Your task to perform on an android device: Open Amazon Image 0: 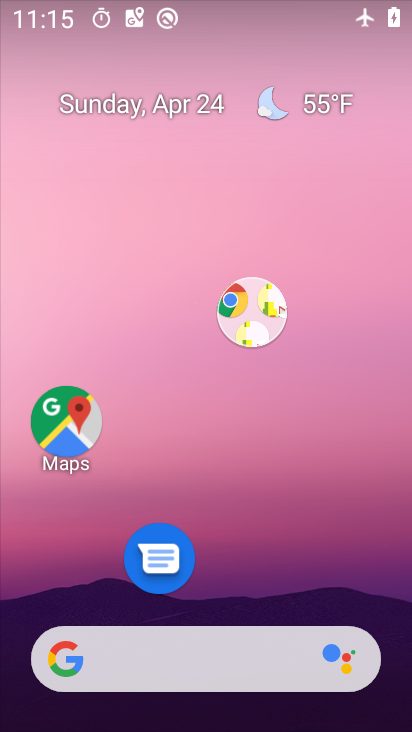
Step 0: drag from (271, 605) to (196, 1)
Your task to perform on an android device: Open Amazon Image 1: 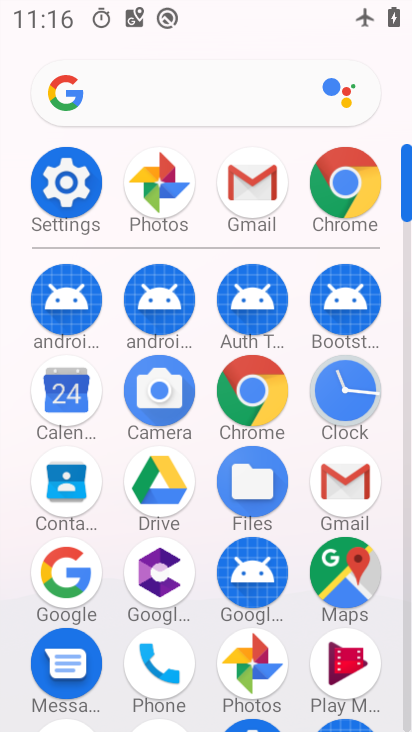
Step 1: click (345, 175)
Your task to perform on an android device: Open Amazon Image 2: 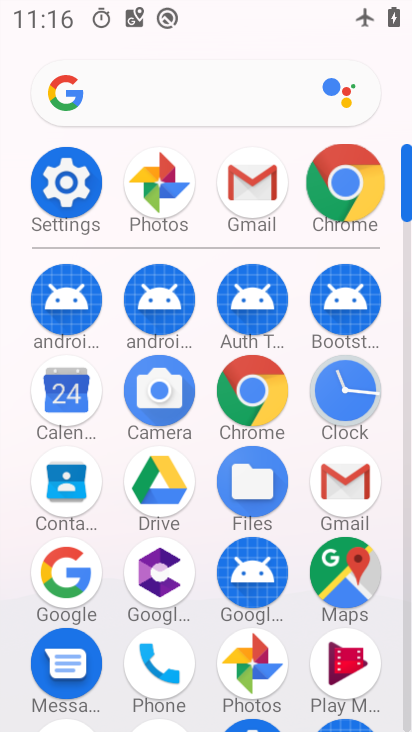
Step 2: click (345, 175)
Your task to perform on an android device: Open Amazon Image 3: 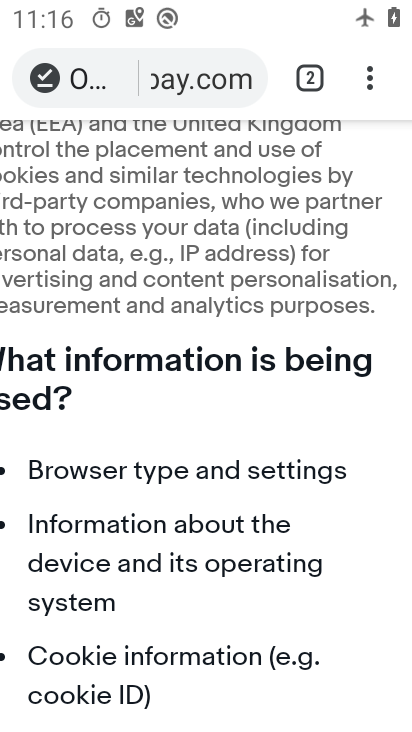
Step 3: click (345, 175)
Your task to perform on an android device: Open Amazon Image 4: 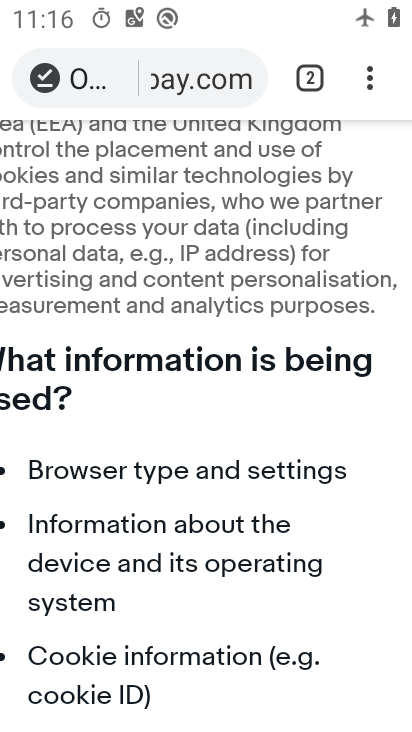
Step 4: click (345, 175)
Your task to perform on an android device: Open Amazon Image 5: 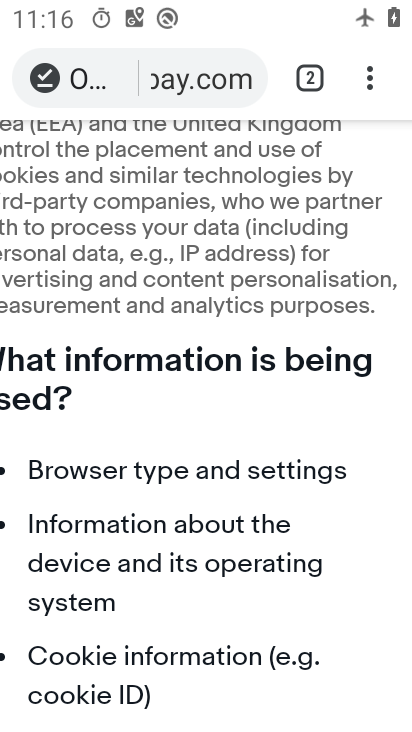
Step 5: drag from (369, 69) to (113, 146)
Your task to perform on an android device: Open Amazon Image 6: 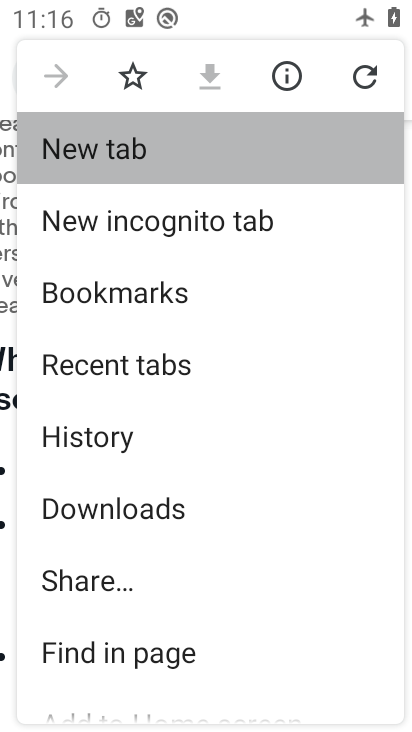
Step 6: click (115, 145)
Your task to perform on an android device: Open Amazon Image 7: 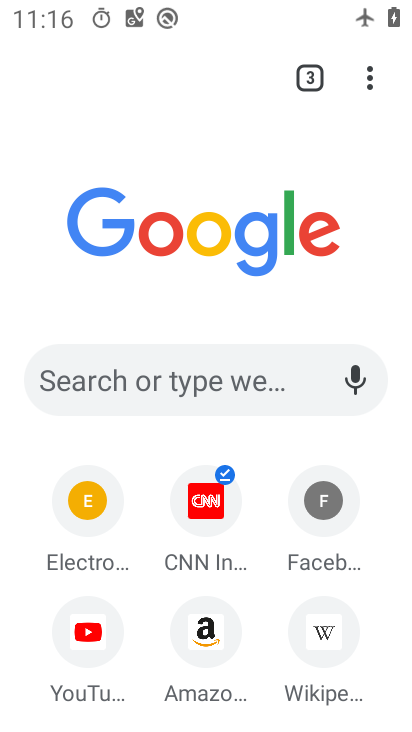
Step 7: click (199, 606)
Your task to perform on an android device: Open Amazon Image 8: 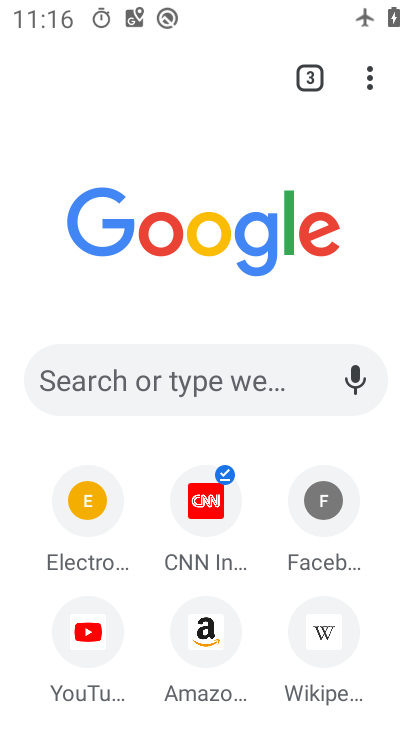
Step 8: click (204, 627)
Your task to perform on an android device: Open Amazon Image 9: 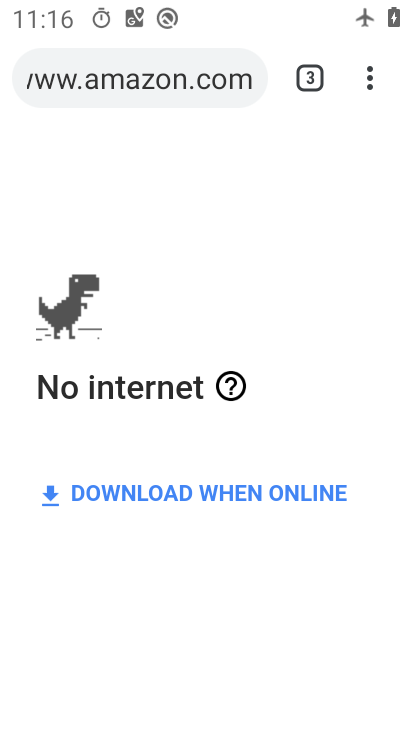
Step 9: task complete